Your task to perform on an android device: Go to Google maps Image 0: 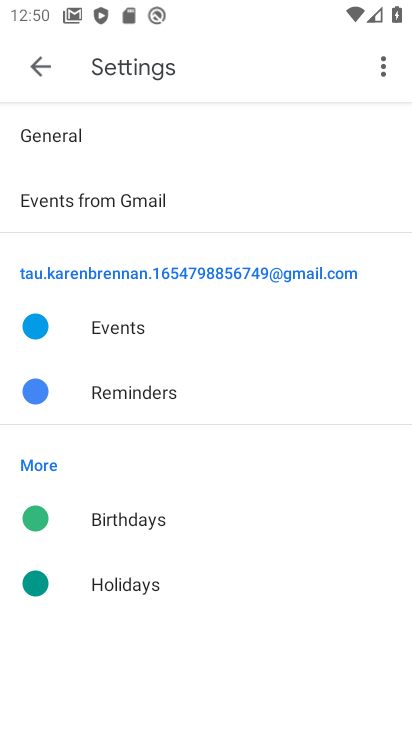
Step 0: press home button
Your task to perform on an android device: Go to Google maps Image 1: 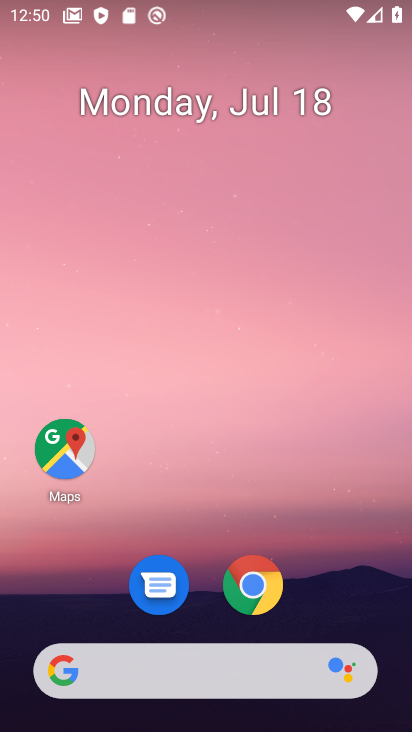
Step 1: click (61, 457)
Your task to perform on an android device: Go to Google maps Image 2: 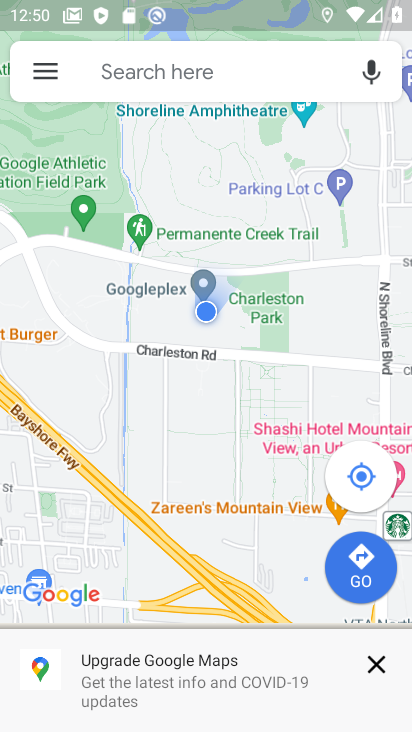
Step 2: task complete